Your task to perform on an android device: delete a single message in the gmail app Image 0: 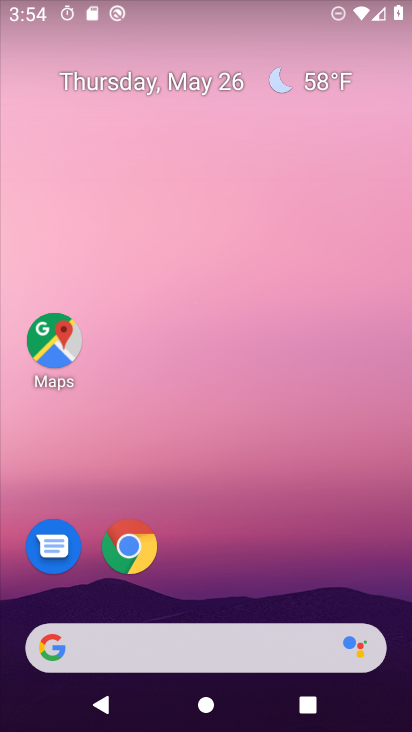
Step 0: press home button
Your task to perform on an android device: delete a single message in the gmail app Image 1: 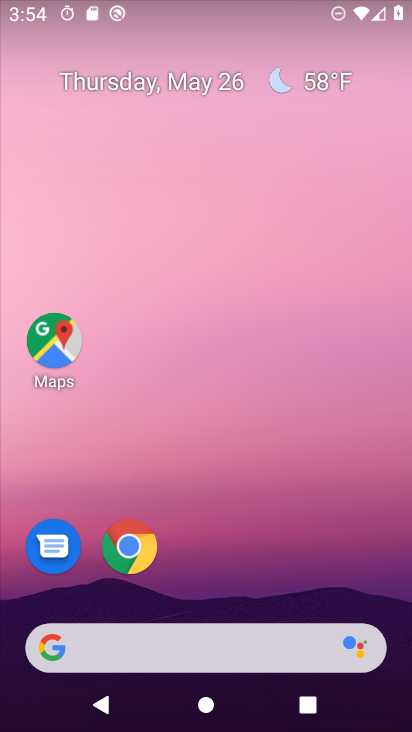
Step 1: press home button
Your task to perform on an android device: delete a single message in the gmail app Image 2: 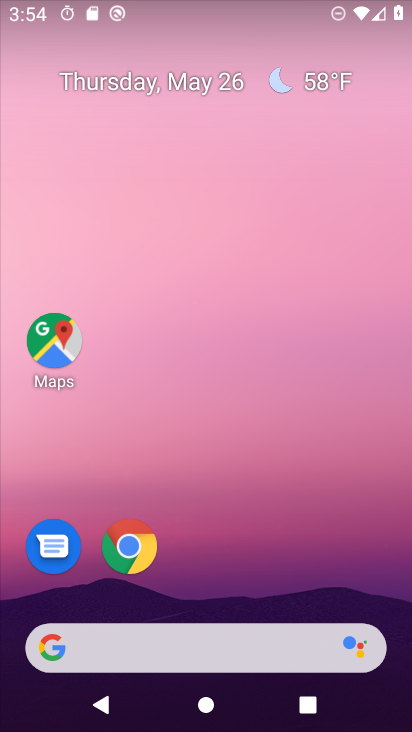
Step 2: drag from (224, 606) to (274, 47)
Your task to perform on an android device: delete a single message in the gmail app Image 3: 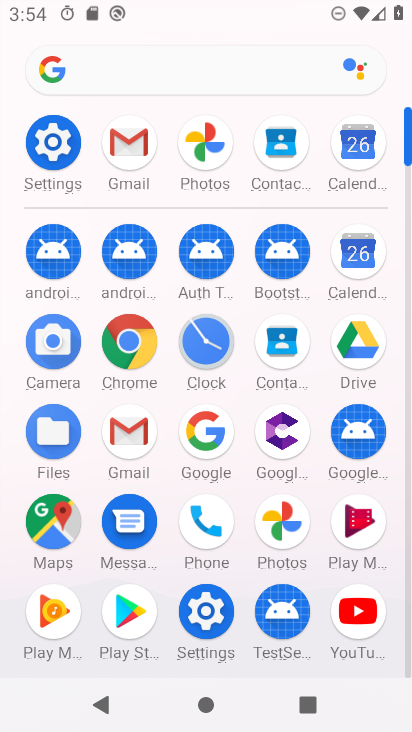
Step 3: click (124, 420)
Your task to perform on an android device: delete a single message in the gmail app Image 4: 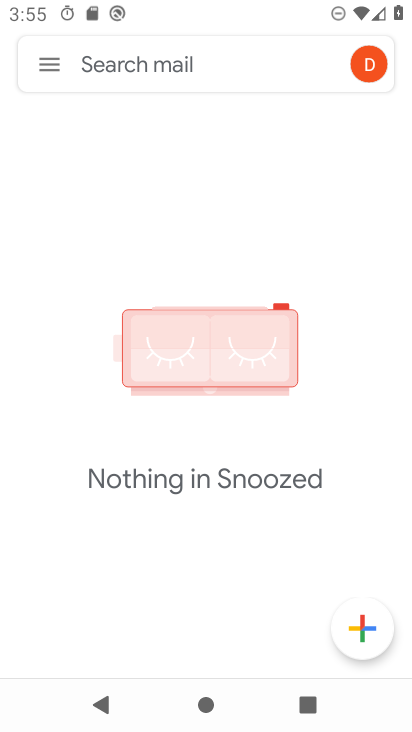
Step 4: click (47, 54)
Your task to perform on an android device: delete a single message in the gmail app Image 5: 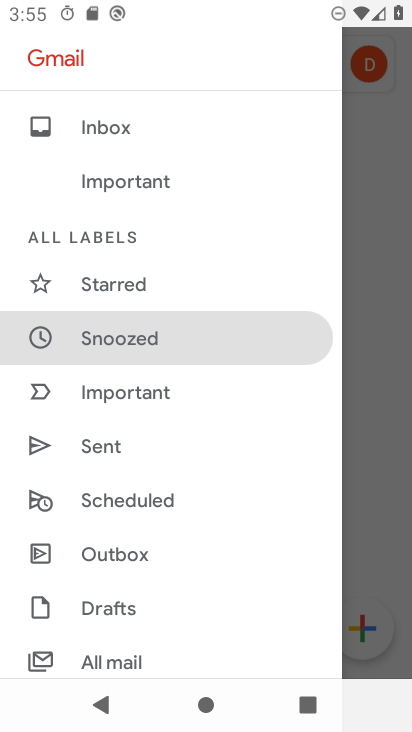
Step 5: click (149, 654)
Your task to perform on an android device: delete a single message in the gmail app Image 6: 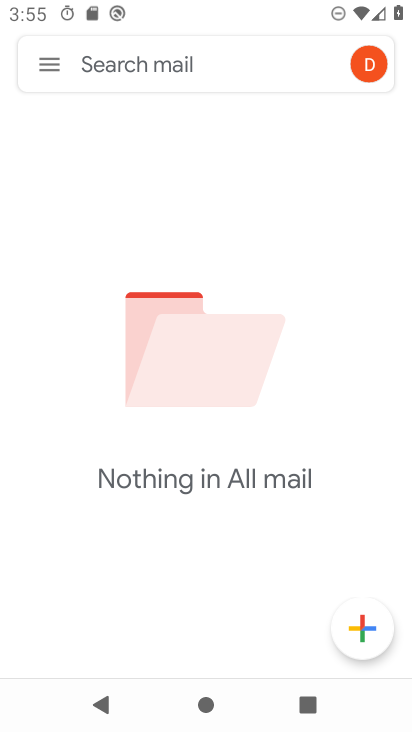
Step 6: task complete